Your task to perform on an android device: Search for a runner rug on Crate & Barrel Image 0: 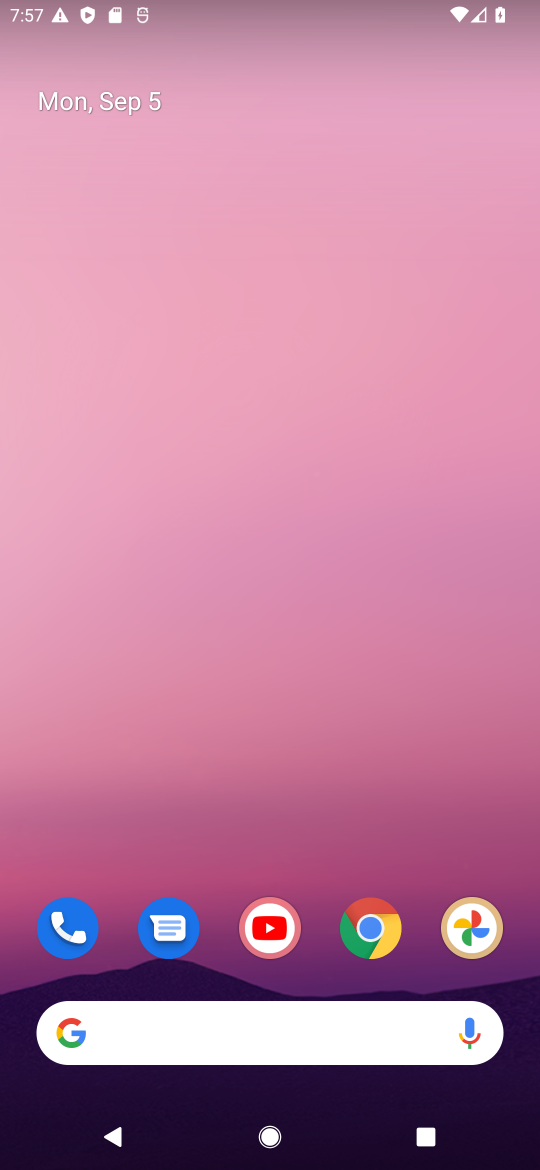
Step 0: click (368, 929)
Your task to perform on an android device: Search for a runner rug on Crate & Barrel Image 1: 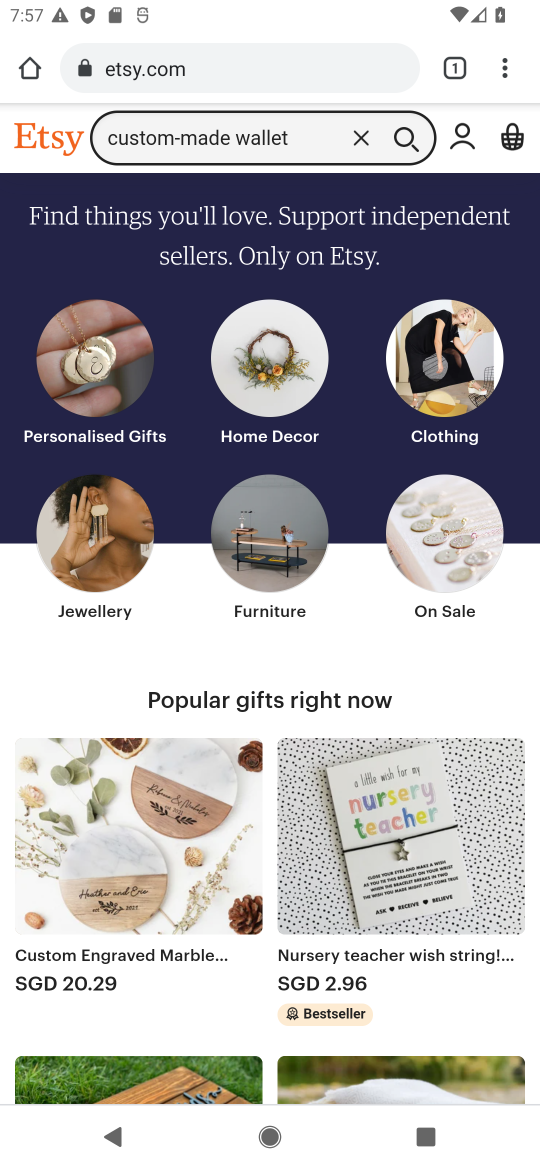
Step 1: click (235, 66)
Your task to perform on an android device: Search for a runner rug on Crate & Barrel Image 2: 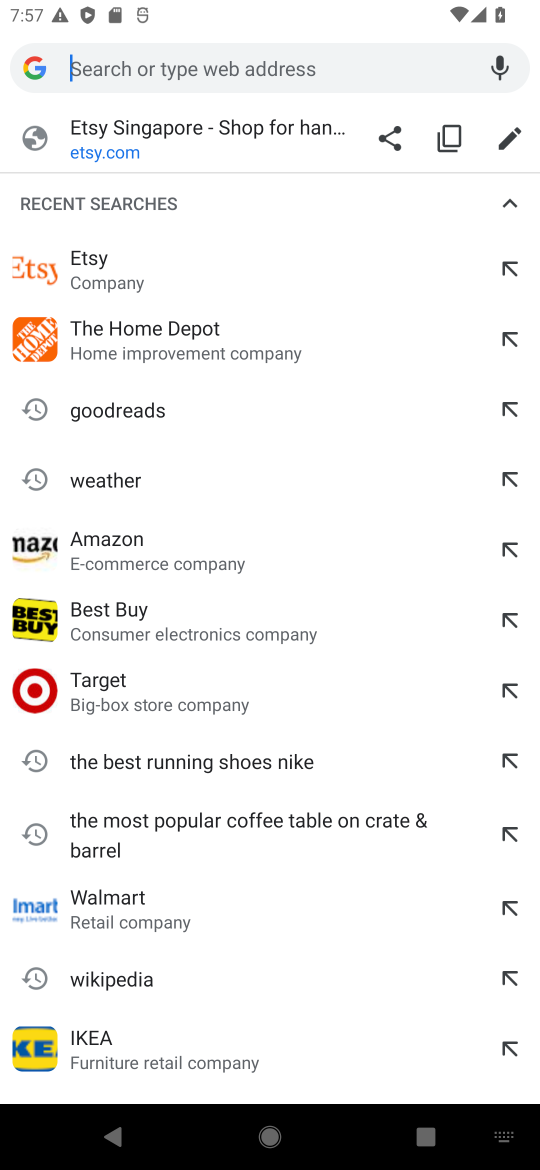
Step 2: type "Crate & Barrel"
Your task to perform on an android device: Search for a runner rug on Crate & Barrel Image 3: 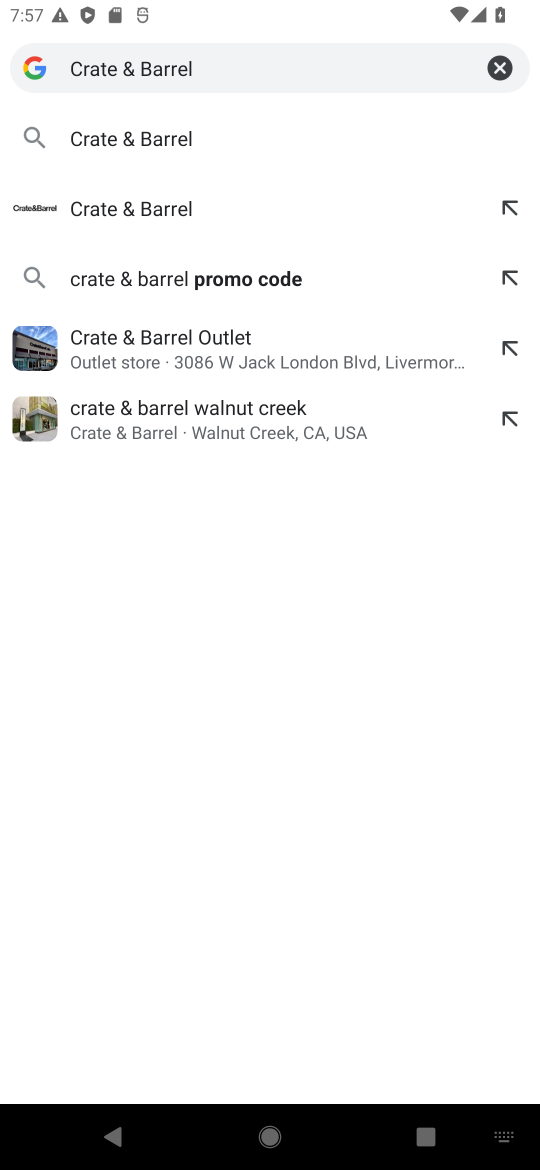
Step 3: click (132, 135)
Your task to perform on an android device: Search for a runner rug on Crate & Barrel Image 4: 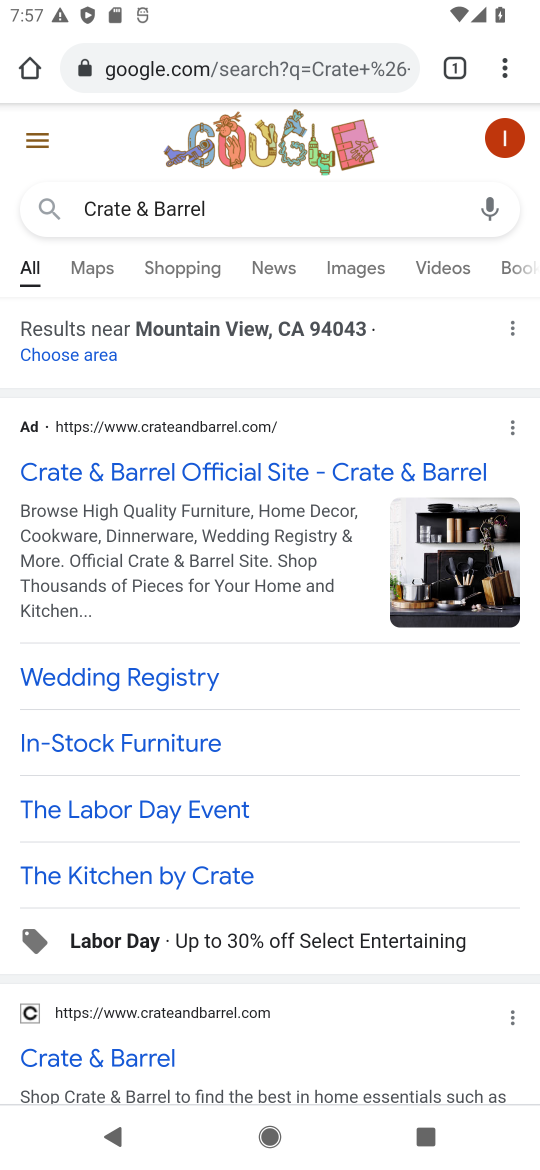
Step 4: click (76, 1059)
Your task to perform on an android device: Search for a runner rug on Crate & Barrel Image 5: 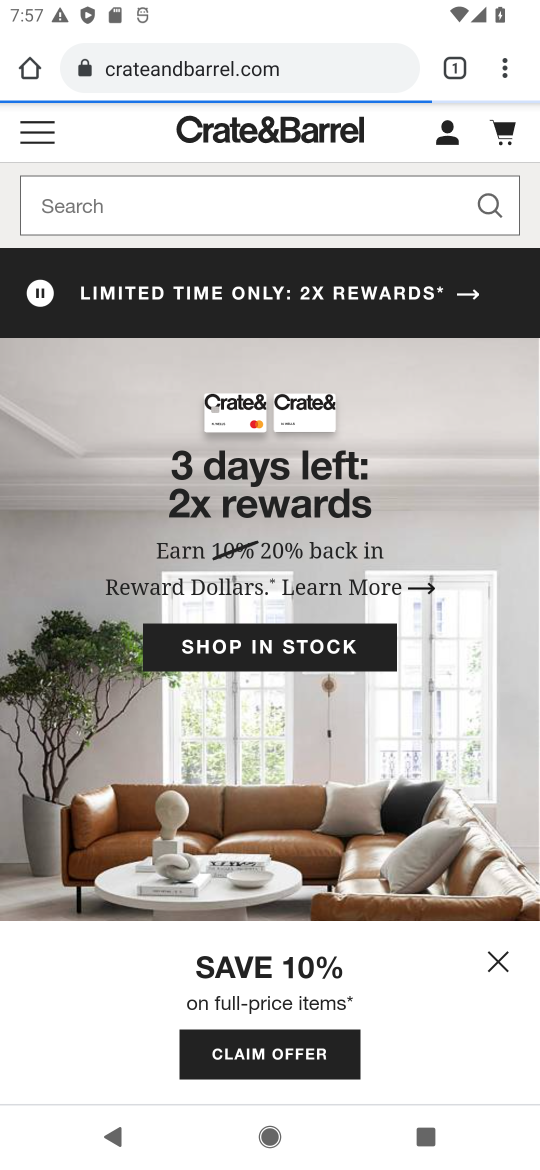
Step 5: click (388, 200)
Your task to perform on an android device: Search for a runner rug on Crate & Barrel Image 6: 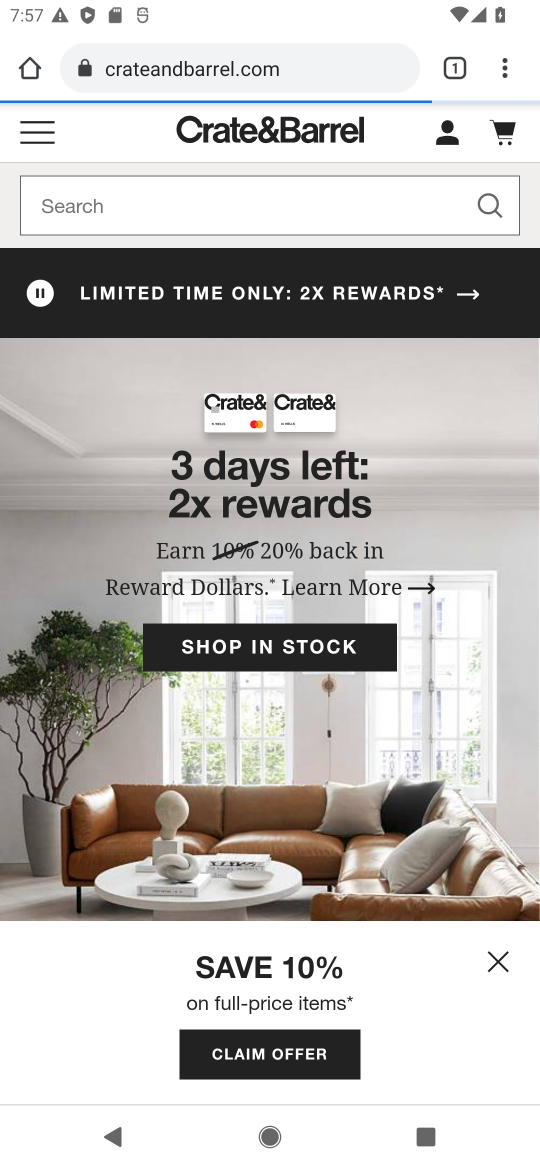
Step 6: click (321, 208)
Your task to perform on an android device: Search for a runner rug on Crate & Barrel Image 7: 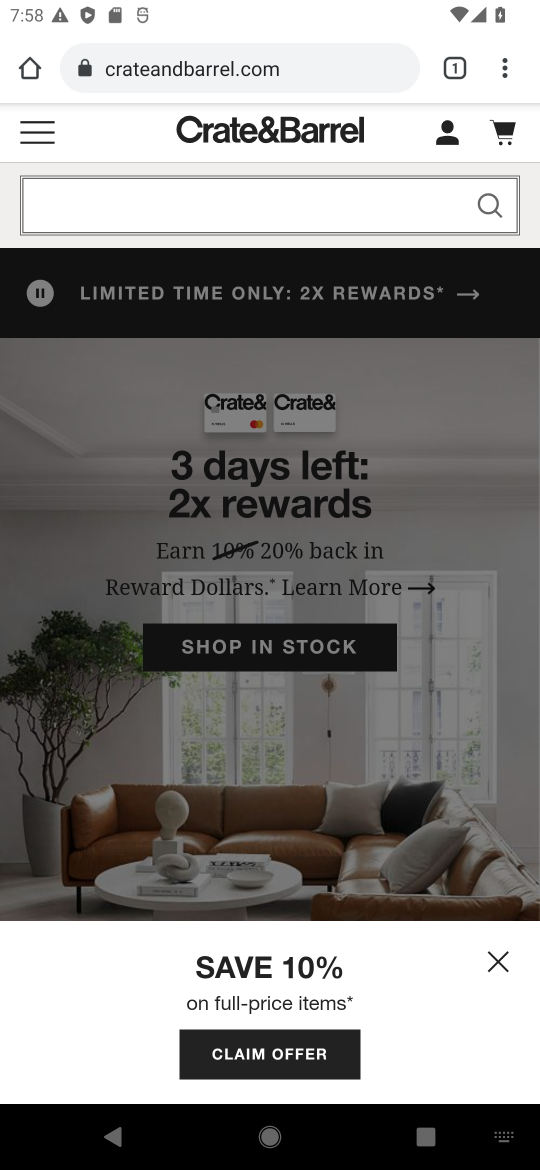
Step 7: type "runner rug"
Your task to perform on an android device: Search for a runner rug on Crate & Barrel Image 8: 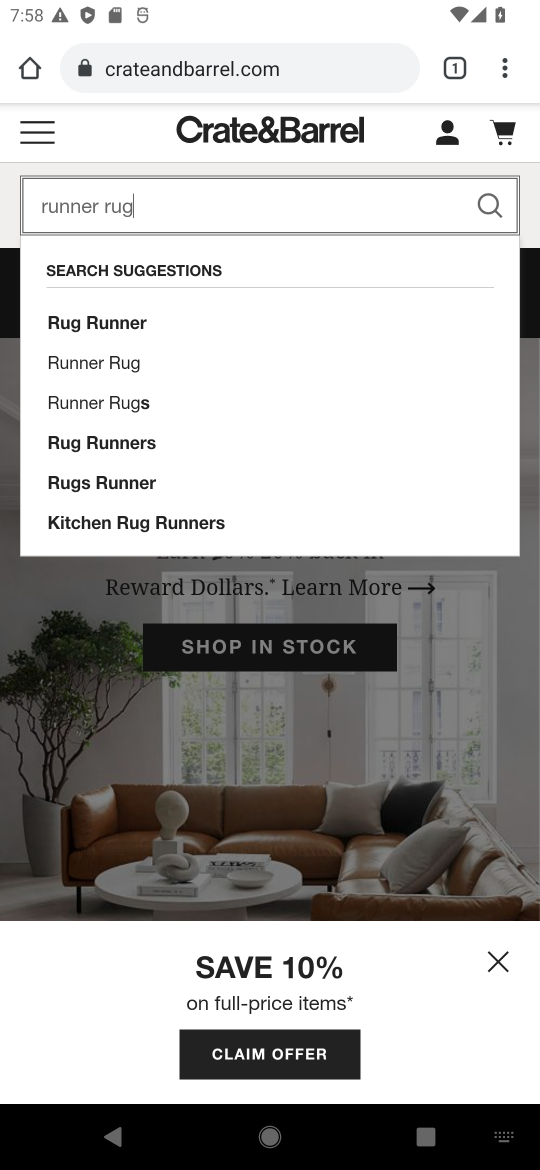
Step 8: click (129, 325)
Your task to perform on an android device: Search for a runner rug on Crate & Barrel Image 9: 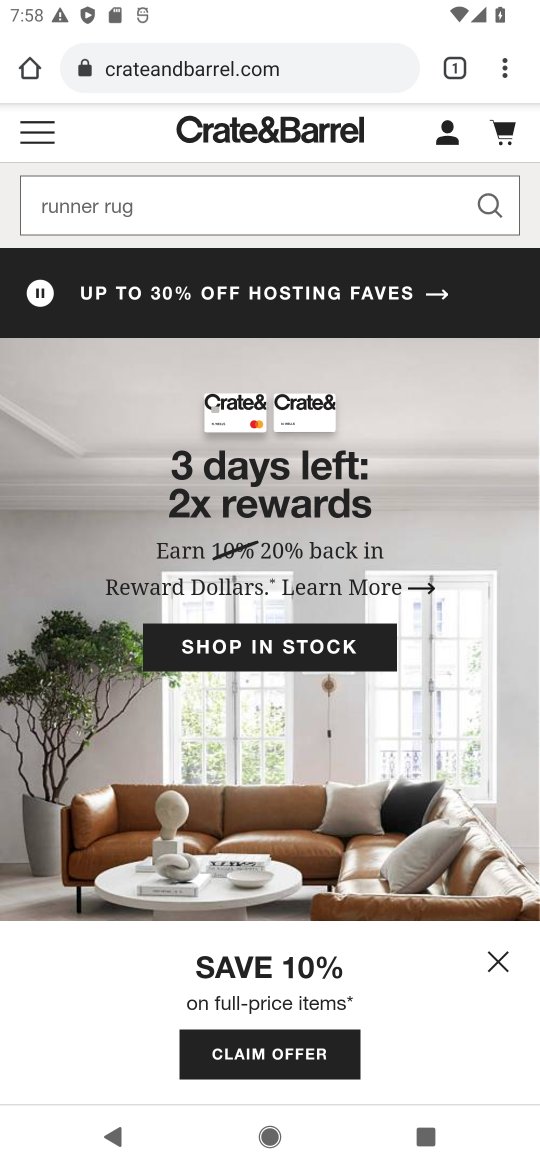
Step 9: task complete